Your task to perform on an android device: Go to Yahoo.com Image 0: 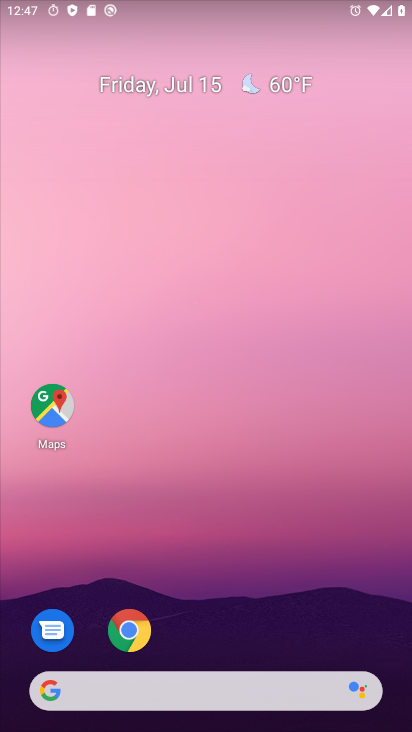
Step 0: click (127, 628)
Your task to perform on an android device: Go to Yahoo.com Image 1: 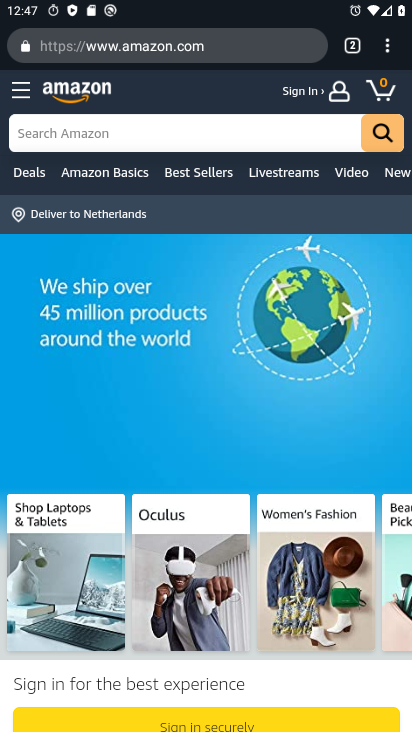
Step 1: task complete